Your task to perform on an android device: clear all cookies in the chrome app Image 0: 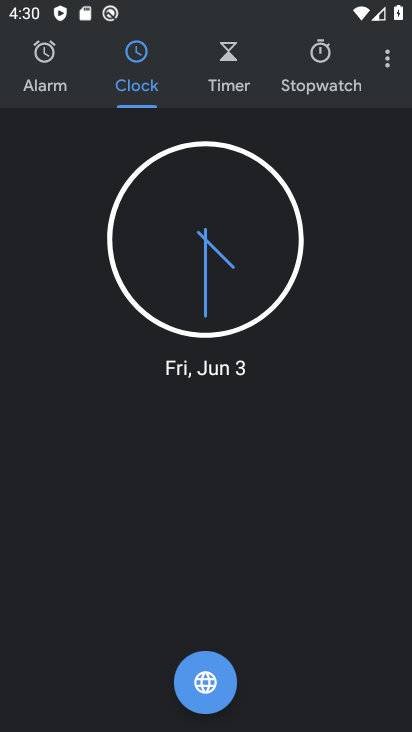
Step 0: press home button
Your task to perform on an android device: clear all cookies in the chrome app Image 1: 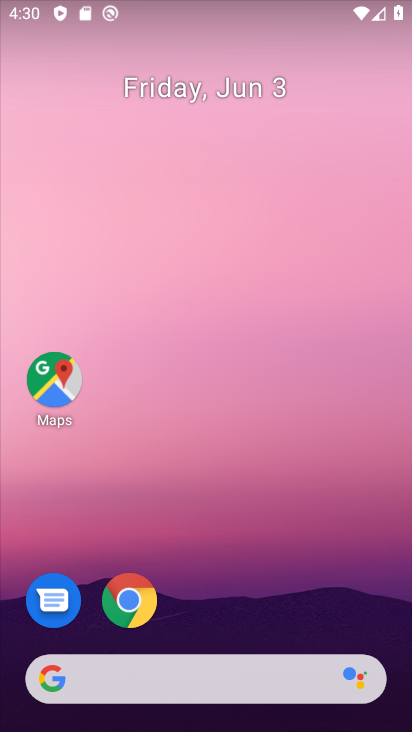
Step 1: click (140, 606)
Your task to perform on an android device: clear all cookies in the chrome app Image 2: 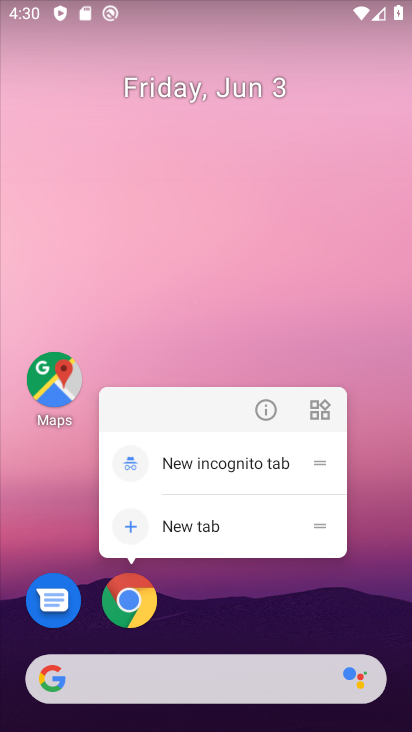
Step 2: click (140, 603)
Your task to perform on an android device: clear all cookies in the chrome app Image 3: 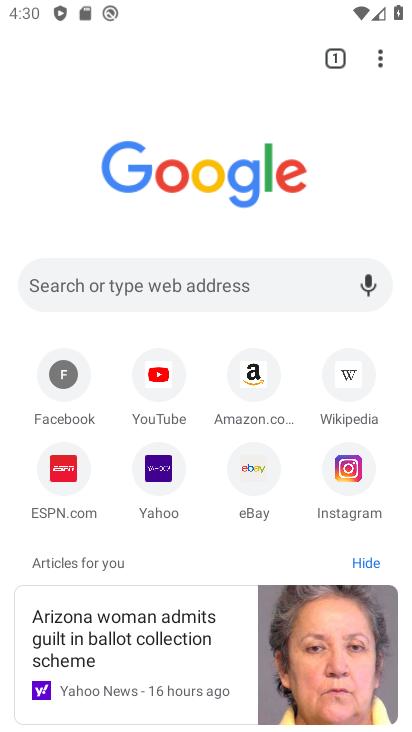
Step 3: click (377, 58)
Your task to perform on an android device: clear all cookies in the chrome app Image 4: 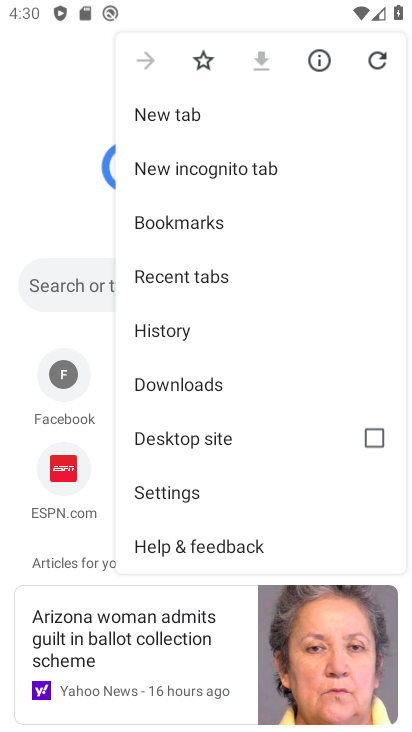
Step 4: click (178, 335)
Your task to perform on an android device: clear all cookies in the chrome app Image 5: 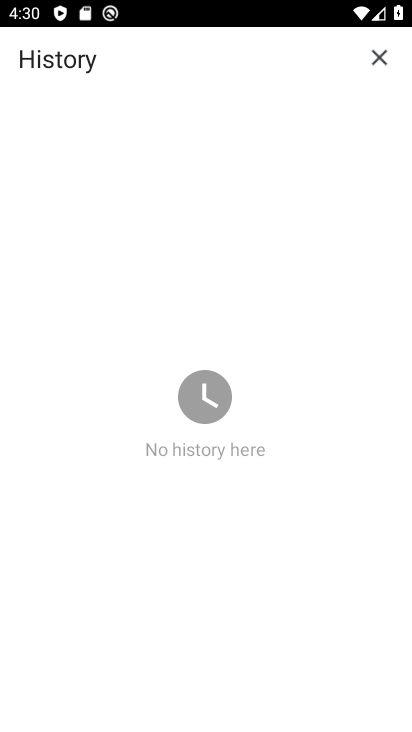
Step 5: task complete